Your task to perform on an android device: open a new tab in the chrome app Image 0: 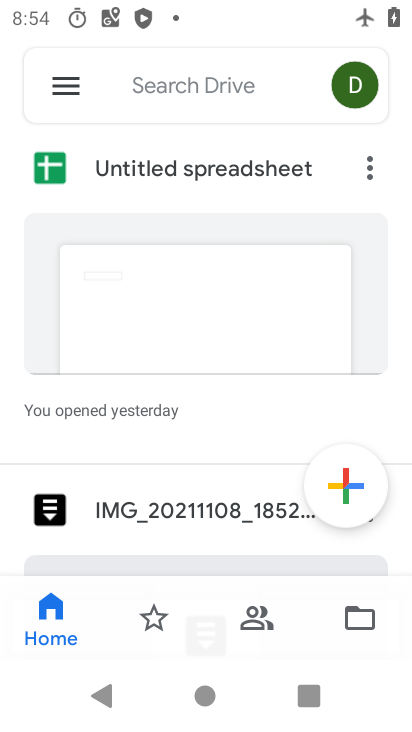
Step 0: press home button
Your task to perform on an android device: open a new tab in the chrome app Image 1: 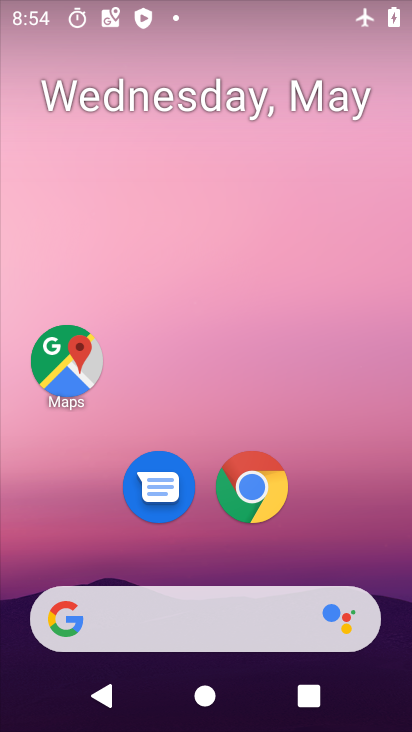
Step 1: click (226, 502)
Your task to perform on an android device: open a new tab in the chrome app Image 2: 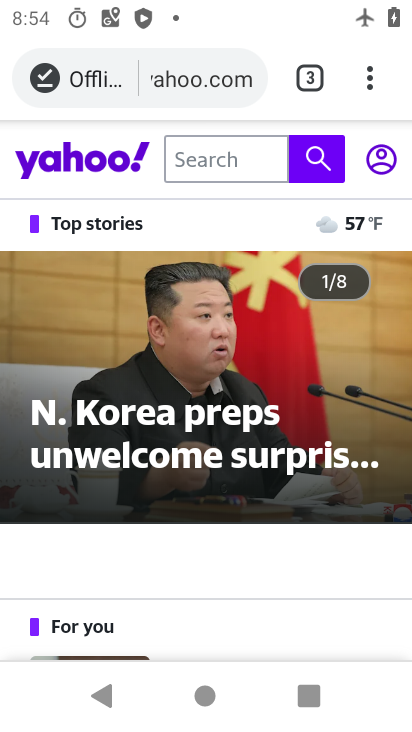
Step 2: click (305, 82)
Your task to perform on an android device: open a new tab in the chrome app Image 3: 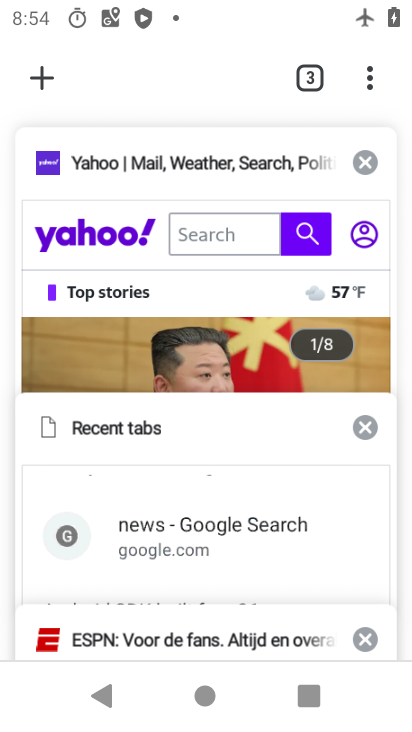
Step 3: click (31, 82)
Your task to perform on an android device: open a new tab in the chrome app Image 4: 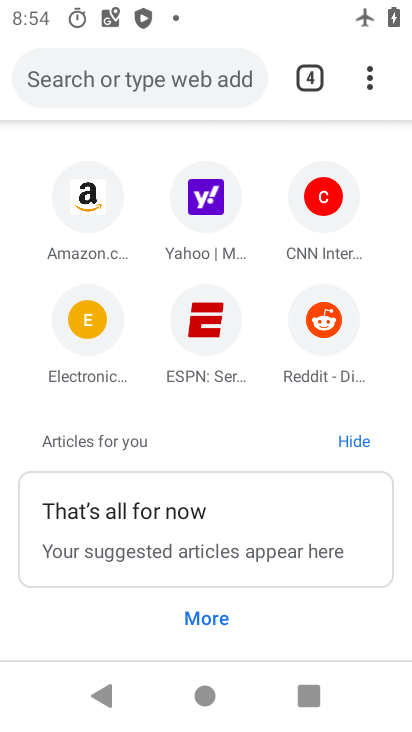
Step 4: task complete